Your task to perform on an android device: turn off data saver in the chrome app Image 0: 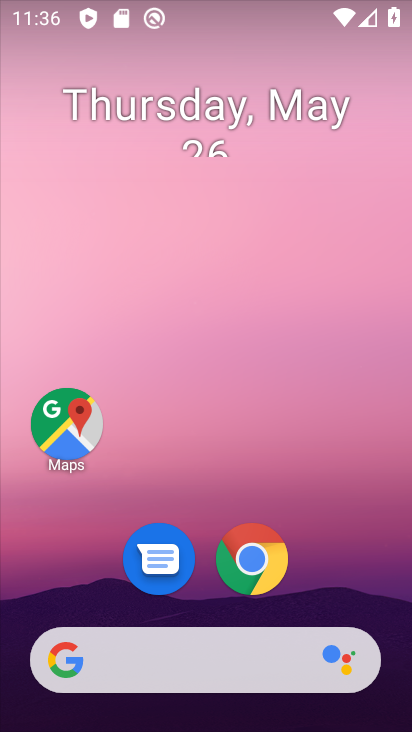
Step 0: click (242, 538)
Your task to perform on an android device: turn off data saver in the chrome app Image 1: 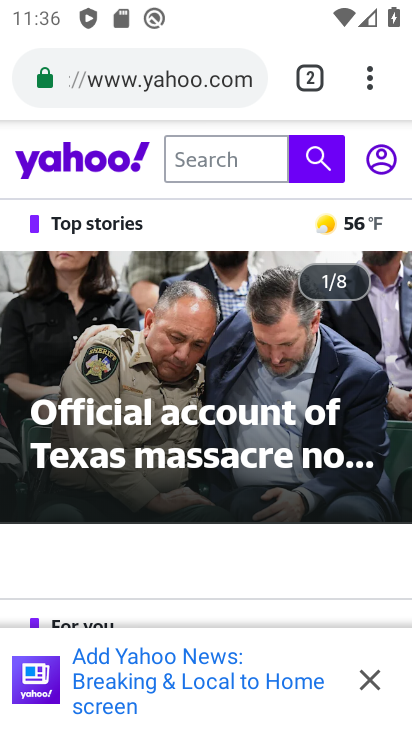
Step 1: click (367, 63)
Your task to perform on an android device: turn off data saver in the chrome app Image 2: 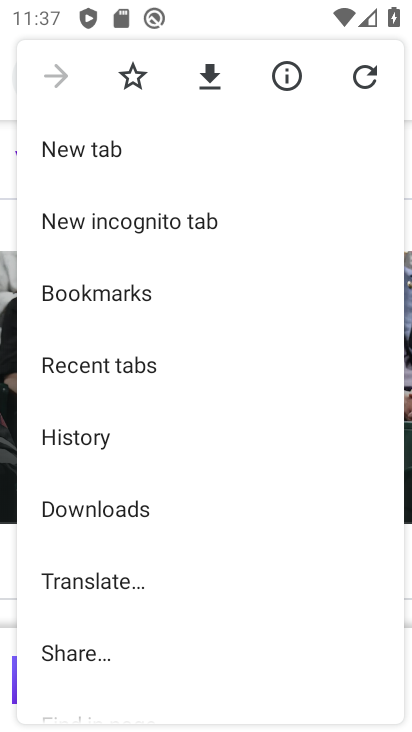
Step 2: drag from (116, 669) to (139, 310)
Your task to perform on an android device: turn off data saver in the chrome app Image 3: 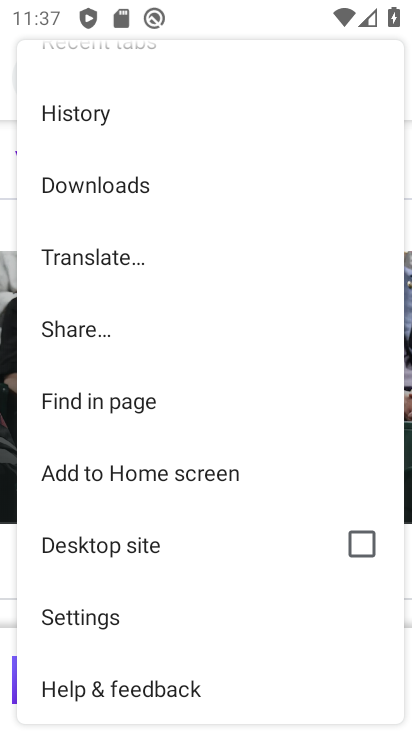
Step 3: click (112, 608)
Your task to perform on an android device: turn off data saver in the chrome app Image 4: 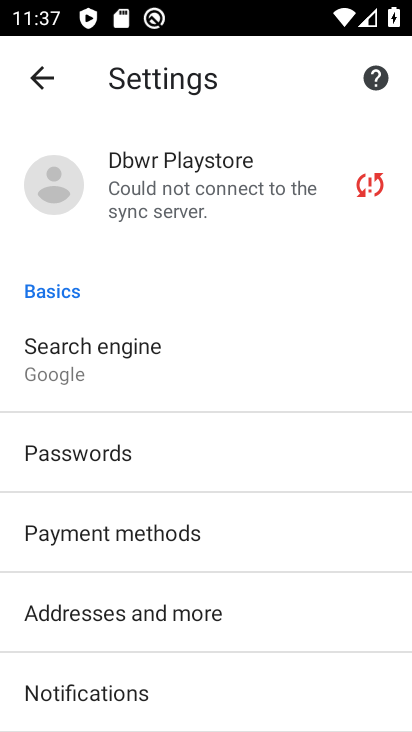
Step 4: drag from (156, 622) to (184, 0)
Your task to perform on an android device: turn off data saver in the chrome app Image 5: 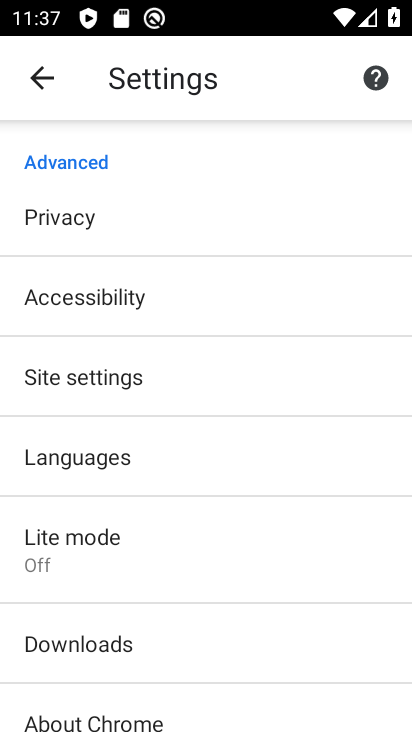
Step 5: click (100, 549)
Your task to perform on an android device: turn off data saver in the chrome app Image 6: 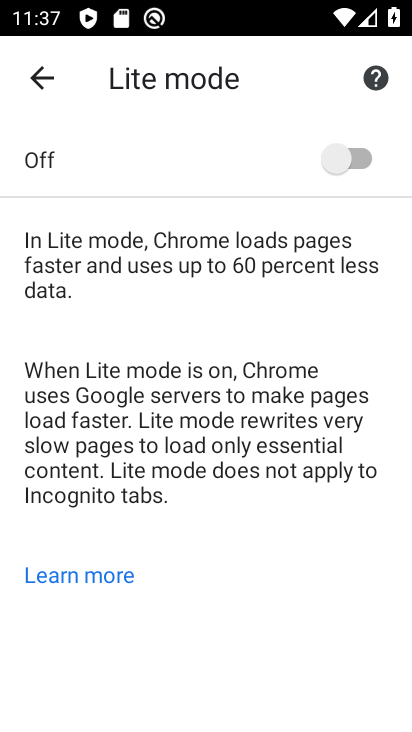
Step 6: task complete